Your task to perform on an android device: Clear all items from cart on costco. Search for apple airpods on costco, select the first entry, add it to the cart, then select checkout. Image 0: 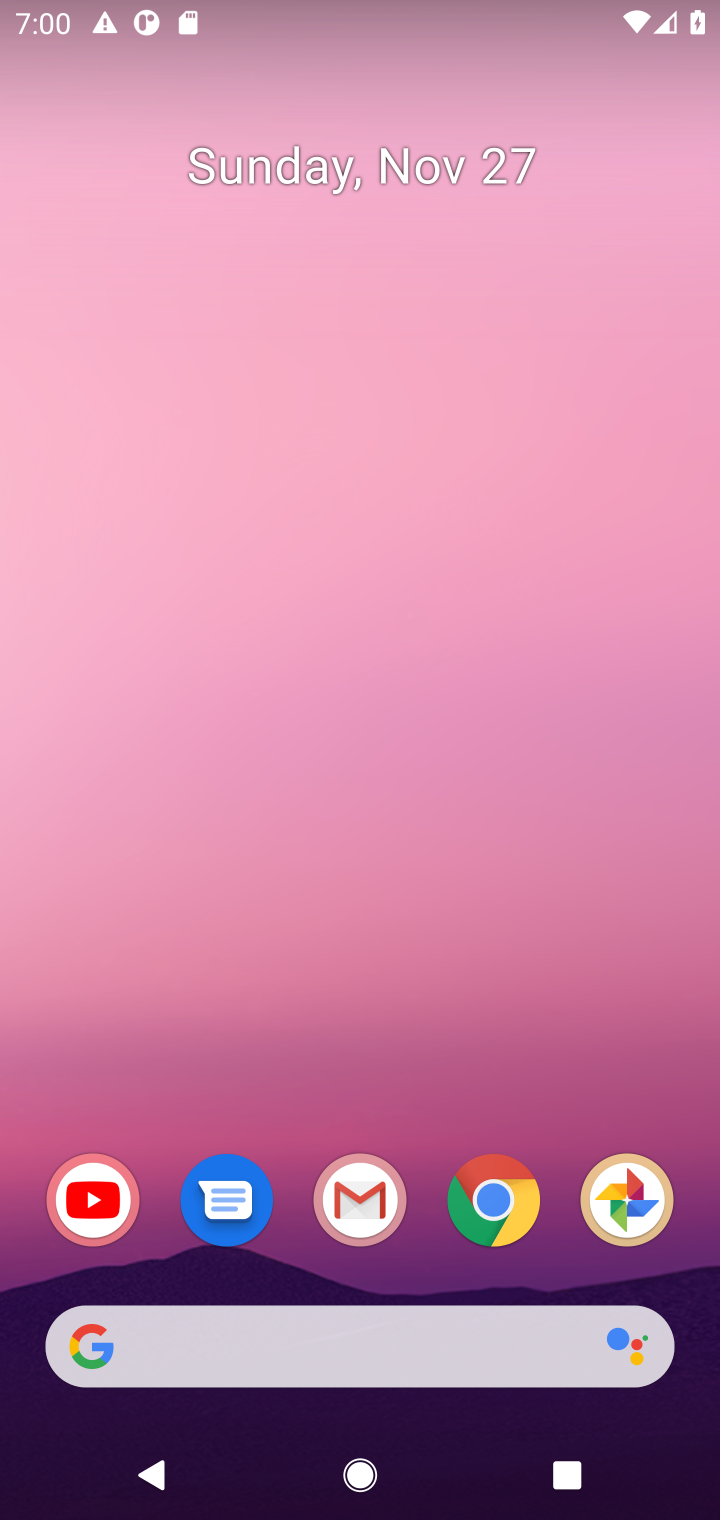
Step 0: click (516, 1213)
Your task to perform on an android device: Clear all items from cart on costco. Search for apple airpods on costco, select the first entry, add it to the cart, then select checkout. Image 1: 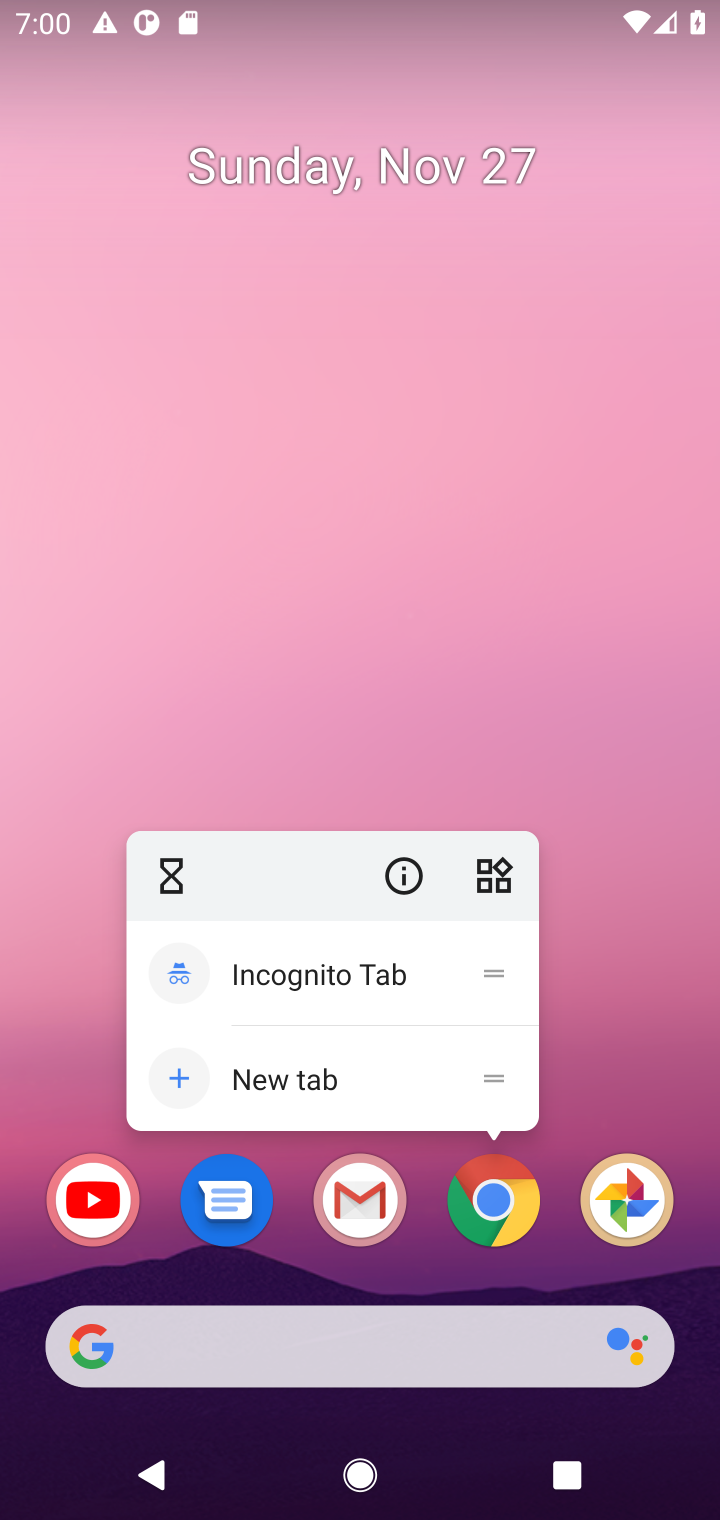
Step 1: click (495, 1213)
Your task to perform on an android device: Clear all items from cart on costco. Search for apple airpods on costco, select the first entry, add it to the cart, then select checkout. Image 2: 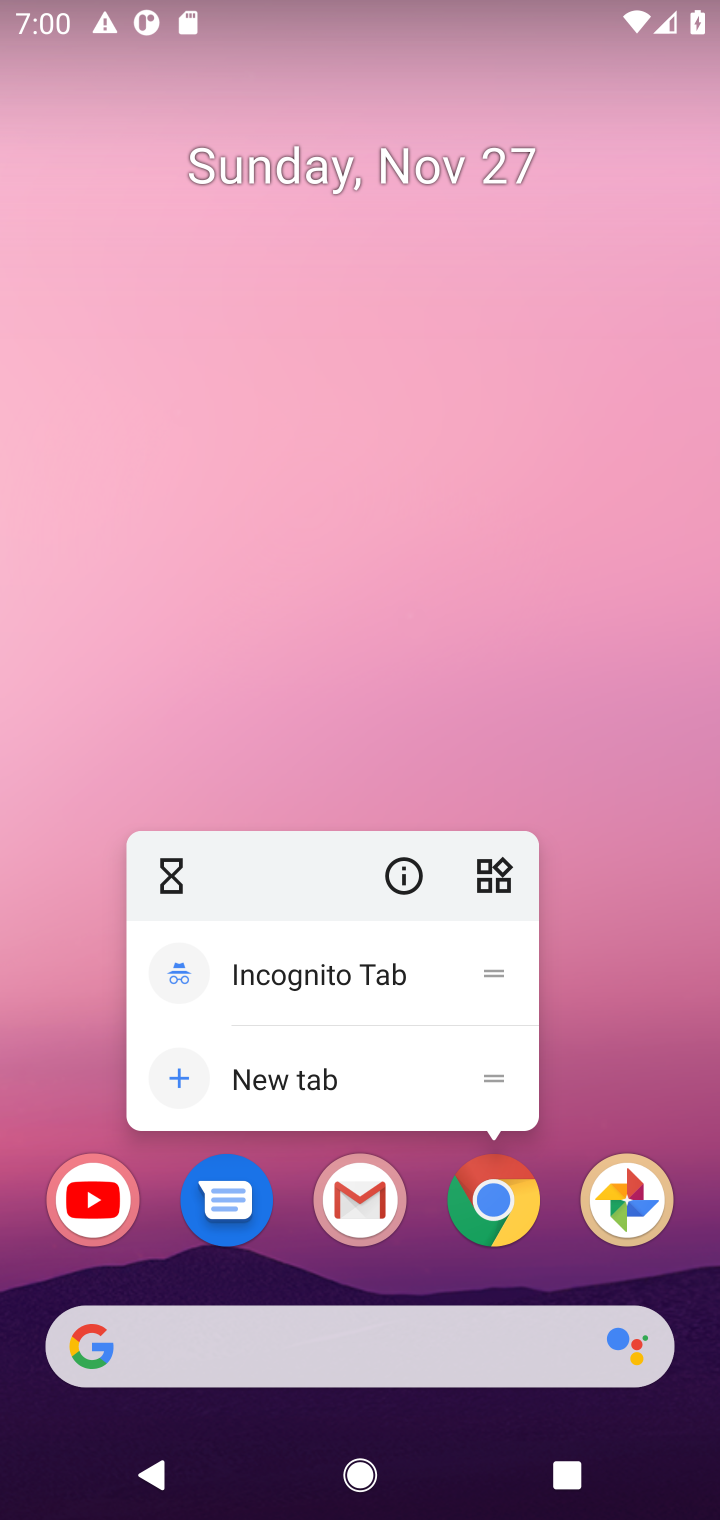
Step 2: click (485, 1216)
Your task to perform on an android device: Clear all items from cart on costco. Search for apple airpods on costco, select the first entry, add it to the cart, then select checkout. Image 3: 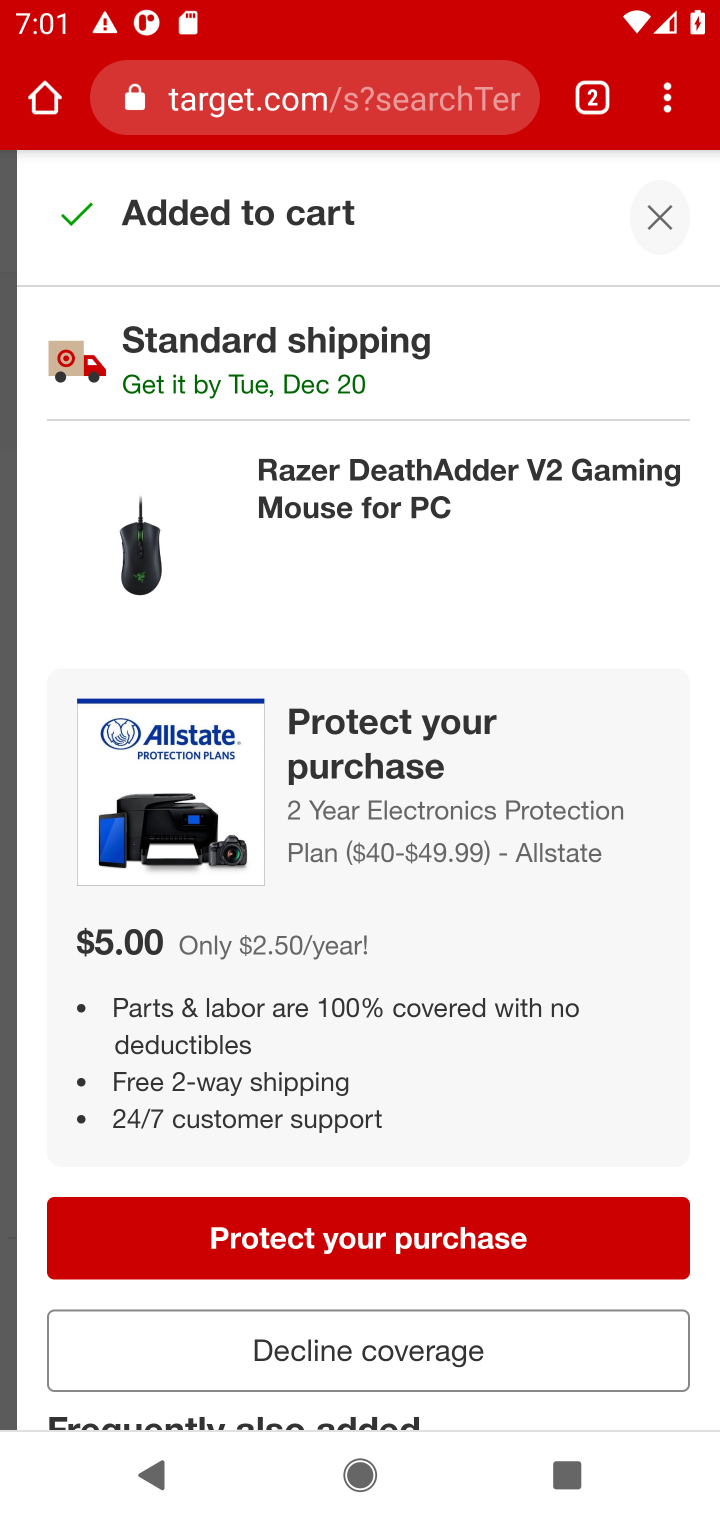
Step 3: click (324, 116)
Your task to perform on an android device: Clear all items from cart on costco. Search for apple airpods on costco, select the first entry, add it to the cart, then select checkout. Image 4: 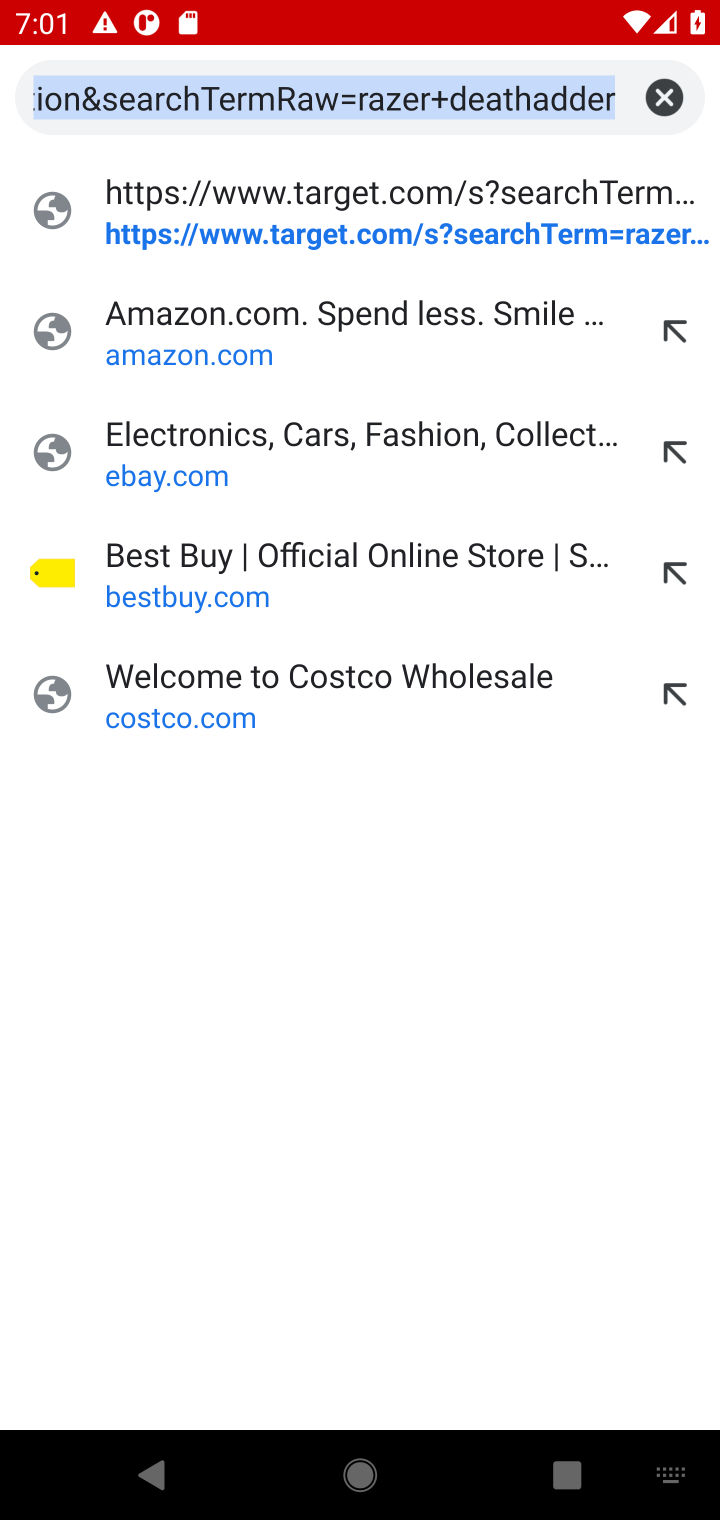
Step 4: click (139, 703)
Your task to perform on an android device: Clear all items from cart on costco. Search for apple airpods on costco, select the first entry, add it to the cart, then select checkout. Image 5: 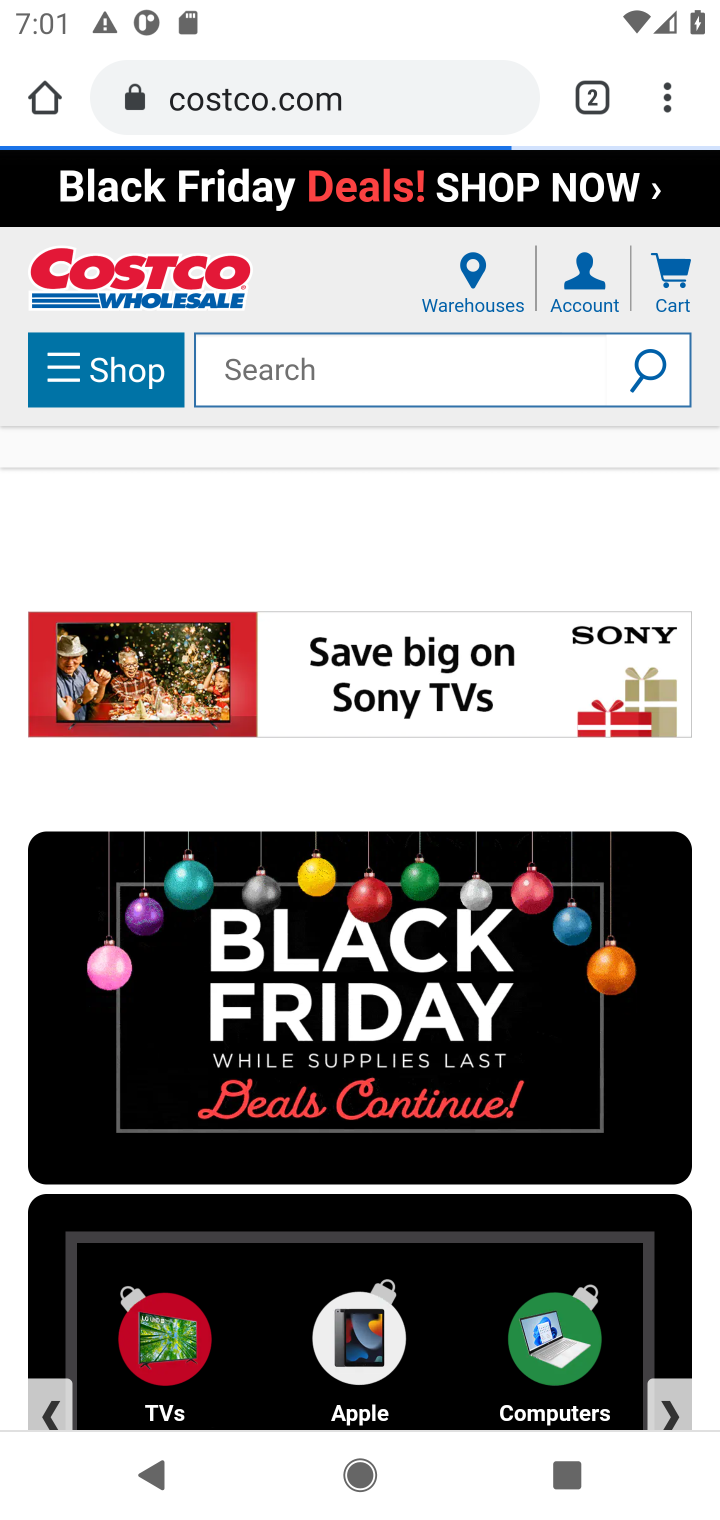
Step 5: click (659, 284)
Your task to perform on an android device: Clear all items from cart on costco. Search for apple airpods on costco, select the first entry, add it to the cart, then select checkout. Image 6: 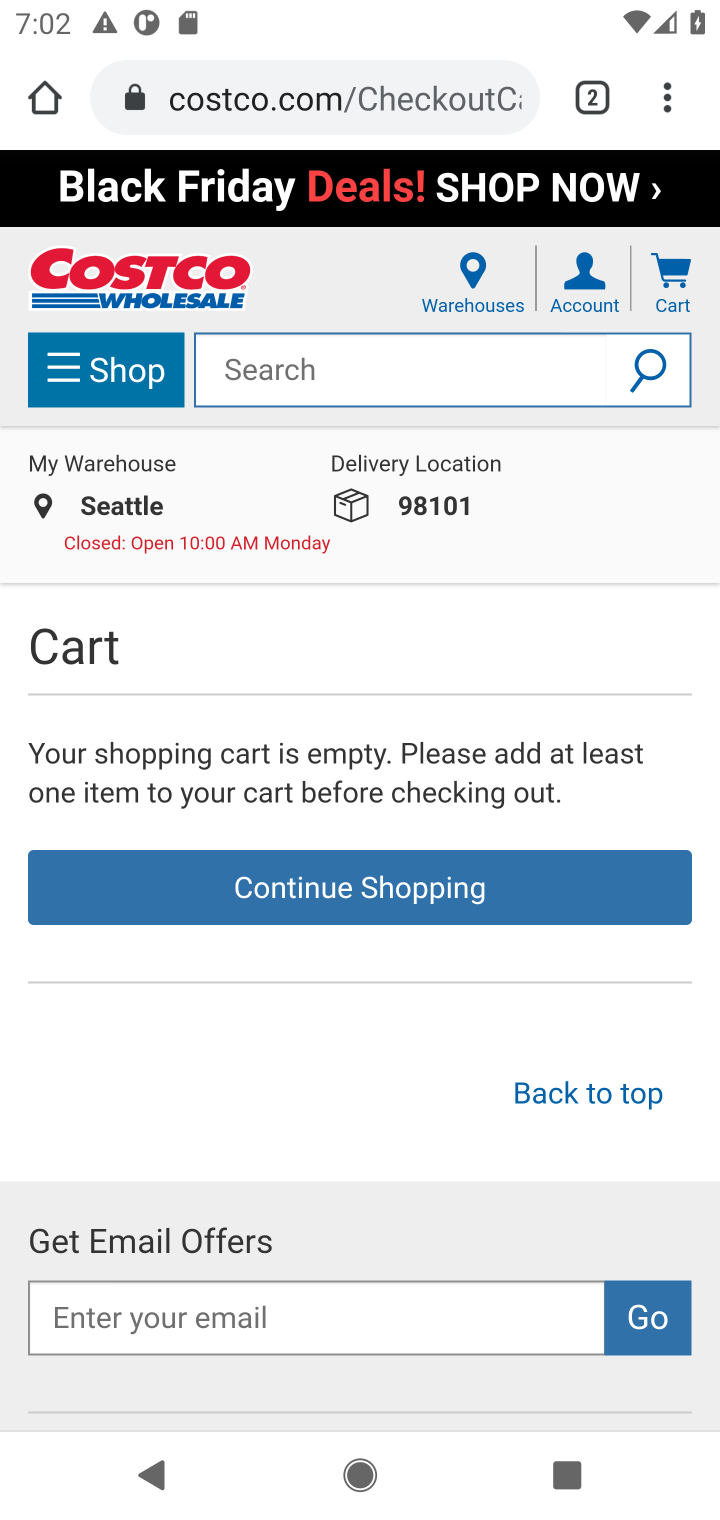
Step 6: click (265, 362)
Your task to perform on an android device: Clear all items from cart on costco. Search for apple airpods on costco, select the first entry, add it to the cart, then select checkout. Image 7: 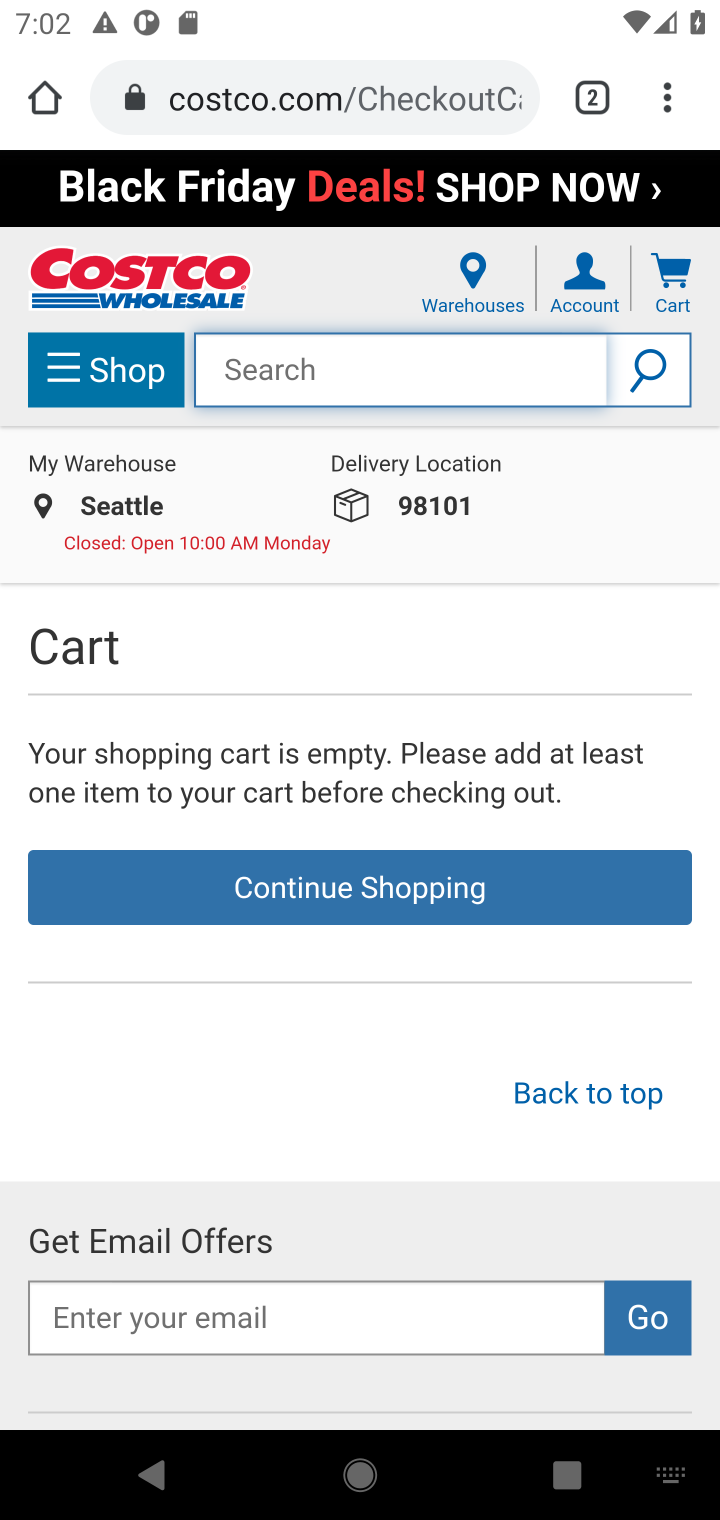
Step 7: type "apple airpods "
Your task to perform on an android device: Clear all items from cart on costco. Search for apple airpods on costco, select the first entry, add it to the cart, then select checkout. Image 8: 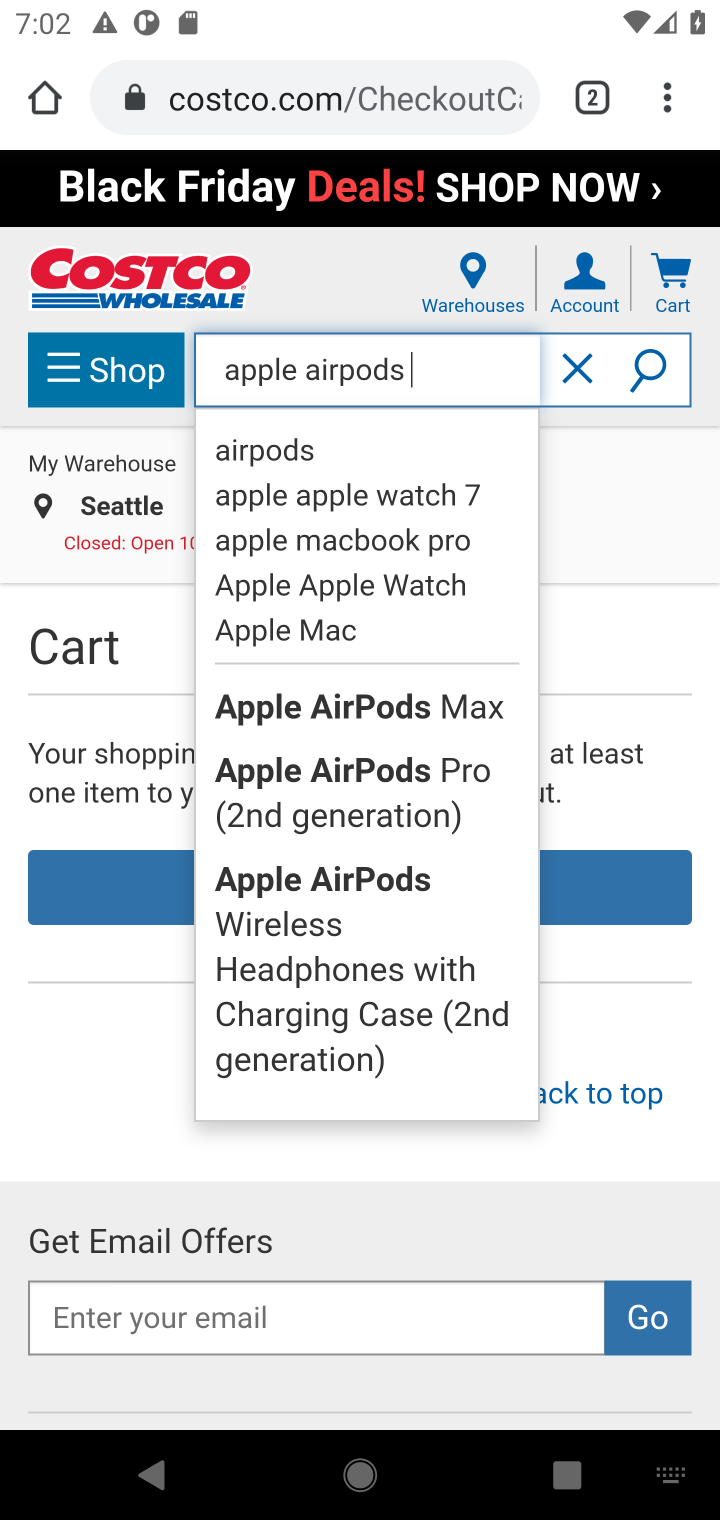
Step 8: click (641, 364)
Your task to perform on an android device: Clear all items from cart on costco. Search for apple airpods on costco, select the first entry, add it to the cart, then select checkout. Image 9: 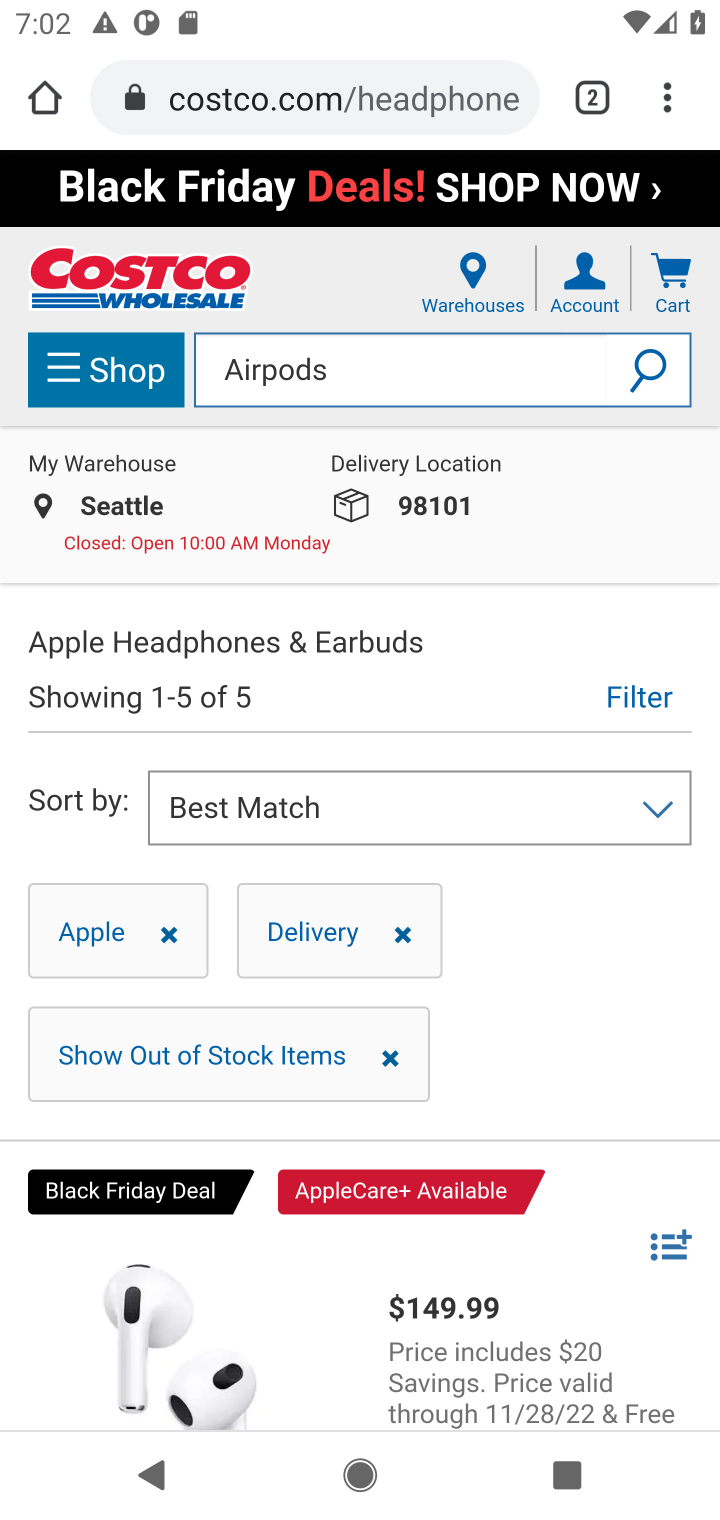
Step 9: drag from (471, 1066) to (519, 666)
Your task to perform on an android device: Clear all items from cart on costco. Search for apple airpods on costco, select the first entry, add it to the cart, then select checkout. Image 10: 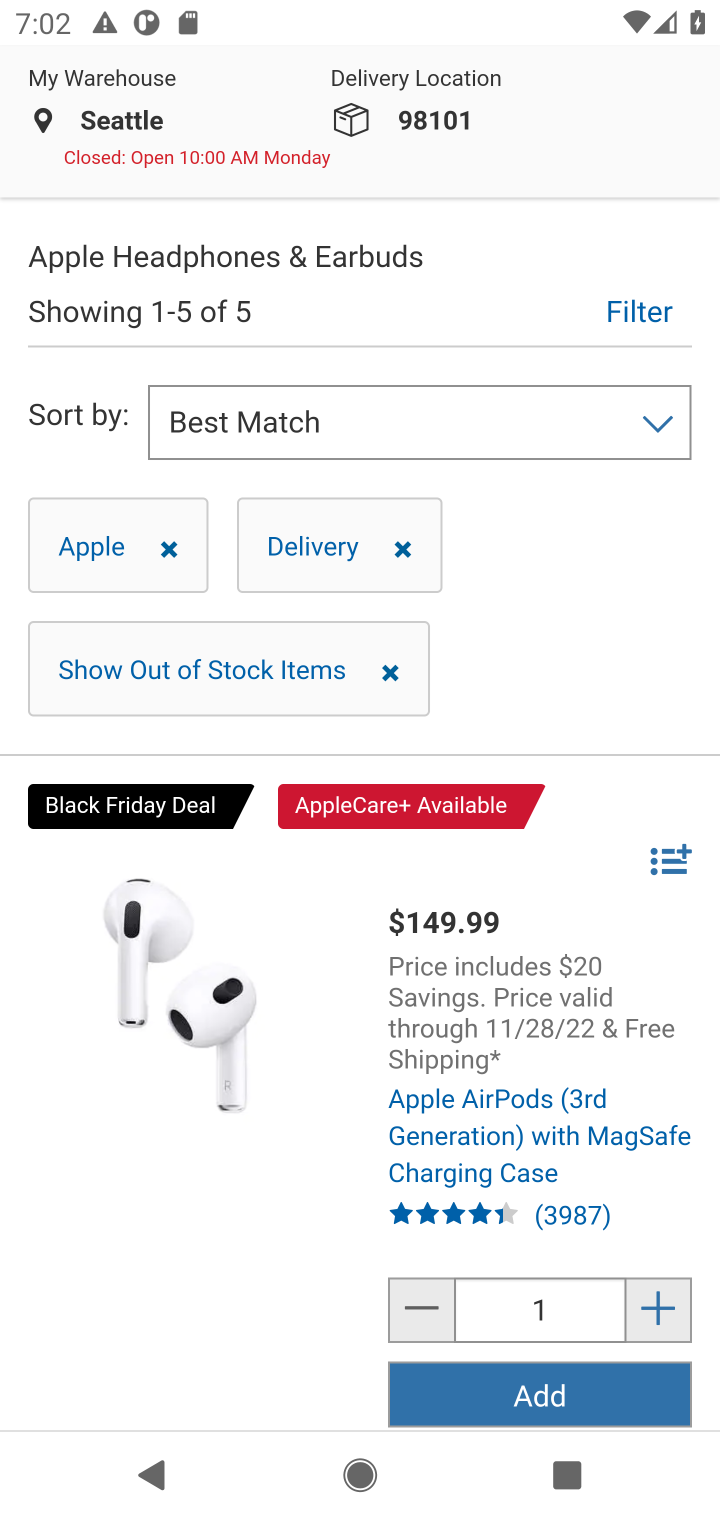
Step 10: click (512, 1391)
Your task to perform on an android device: Clear all items from cart on costco. Search for apple airpods on costco, select the first entry, add it to the cart, then select checkout. Image 11: 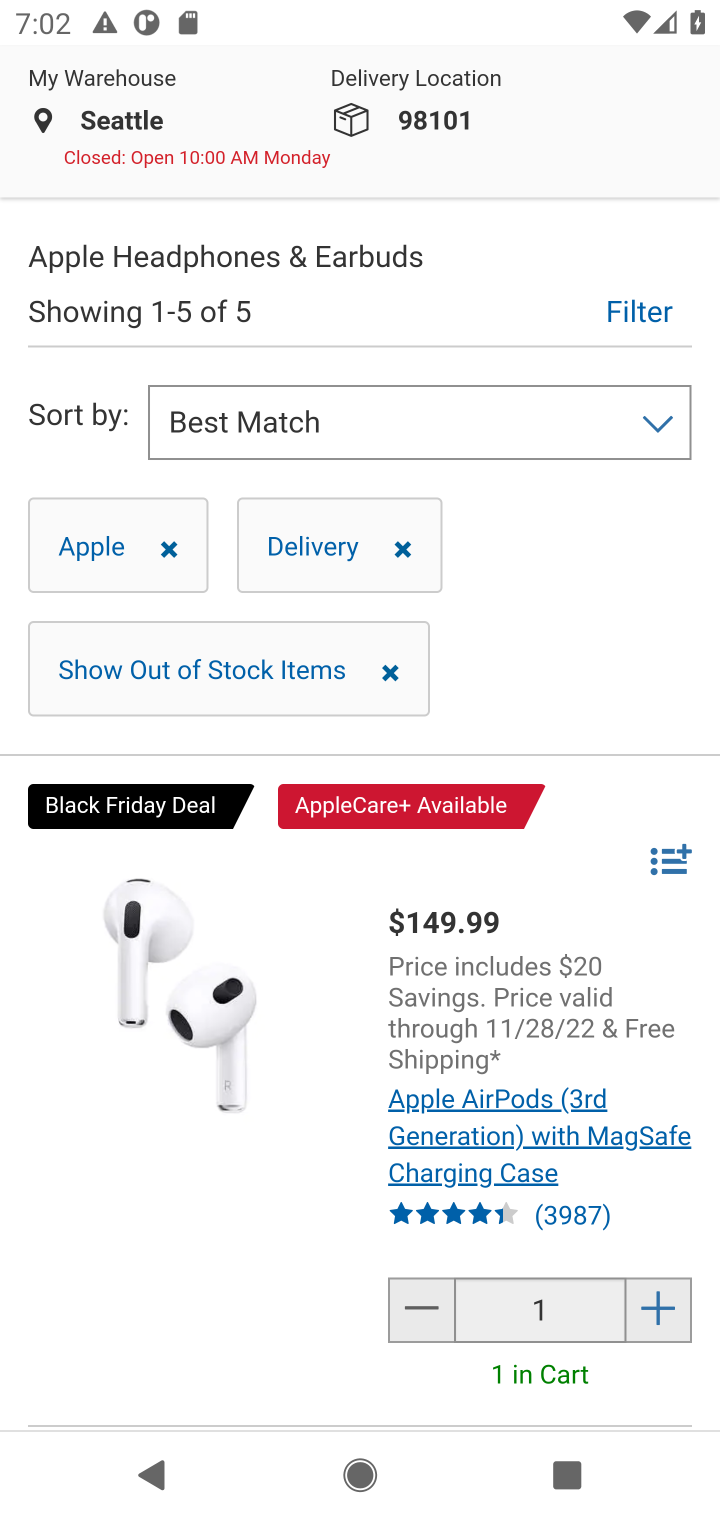
Step 11: click (529, 1380)
Your task to perform on an android device: Clear all items from cart on costco. Search for apple airpods on costco, select the first entry, add it to the cart, then select checkout. Image 12: 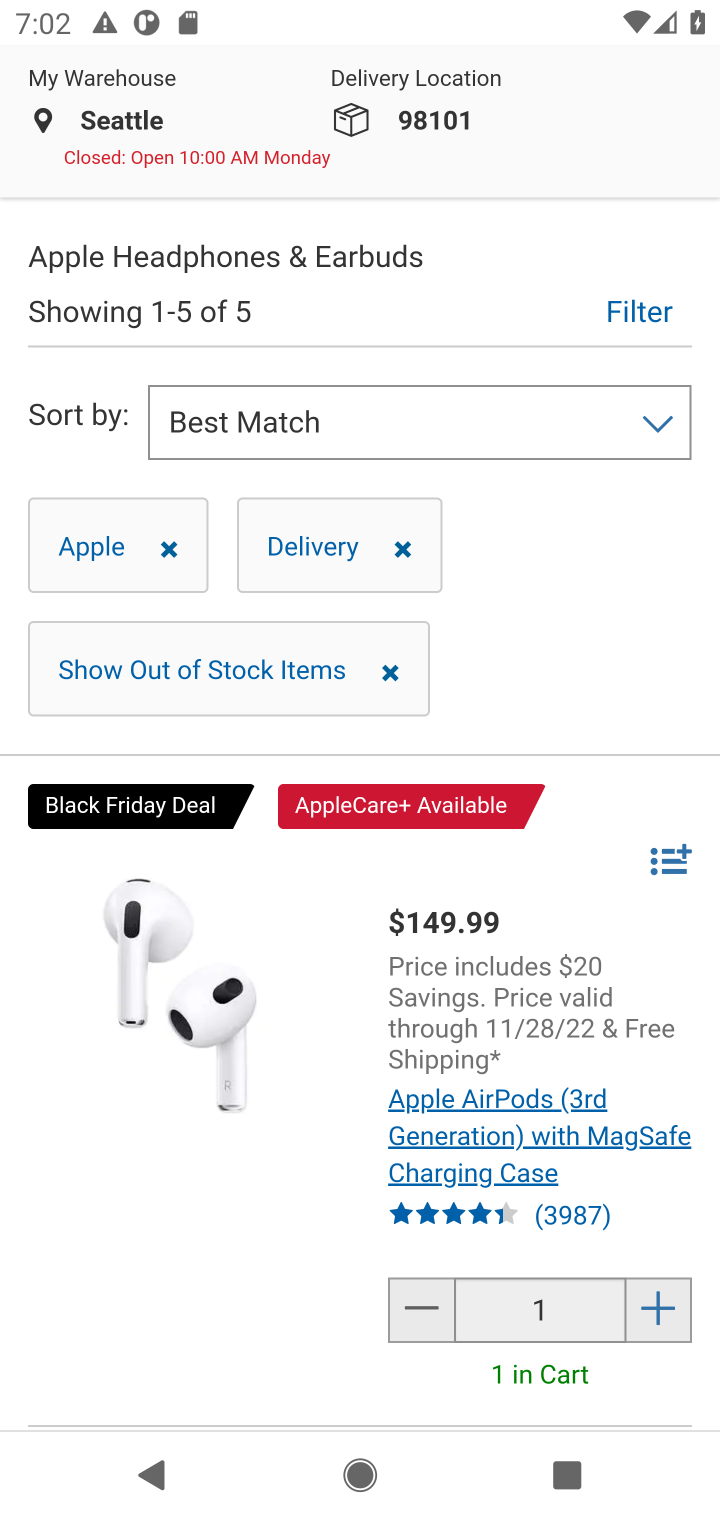
Step 12: drag from (486, 560) to (419, 1044)
Your task to perform on an android device: Clear all items from cart on costco. Search for apple airpods on costco, select the first entry, add it to the cart, then select checkout. Image 13: 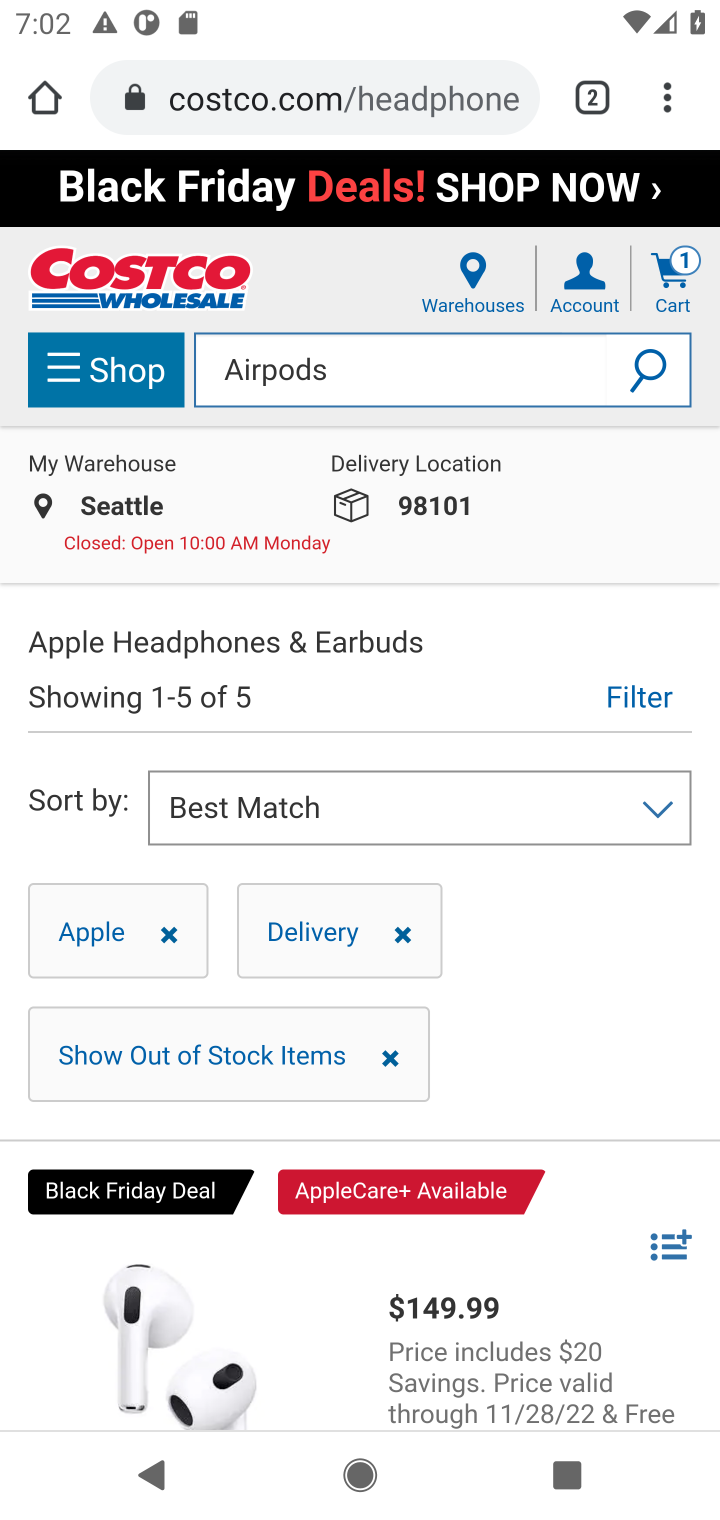
Step 13: click (673, 290)
Your task to perform on an android device: Clear all items from cart on costco. Search for apple airpods on costco, select the first entry, add it to the cart, then select checkout. Image 14: 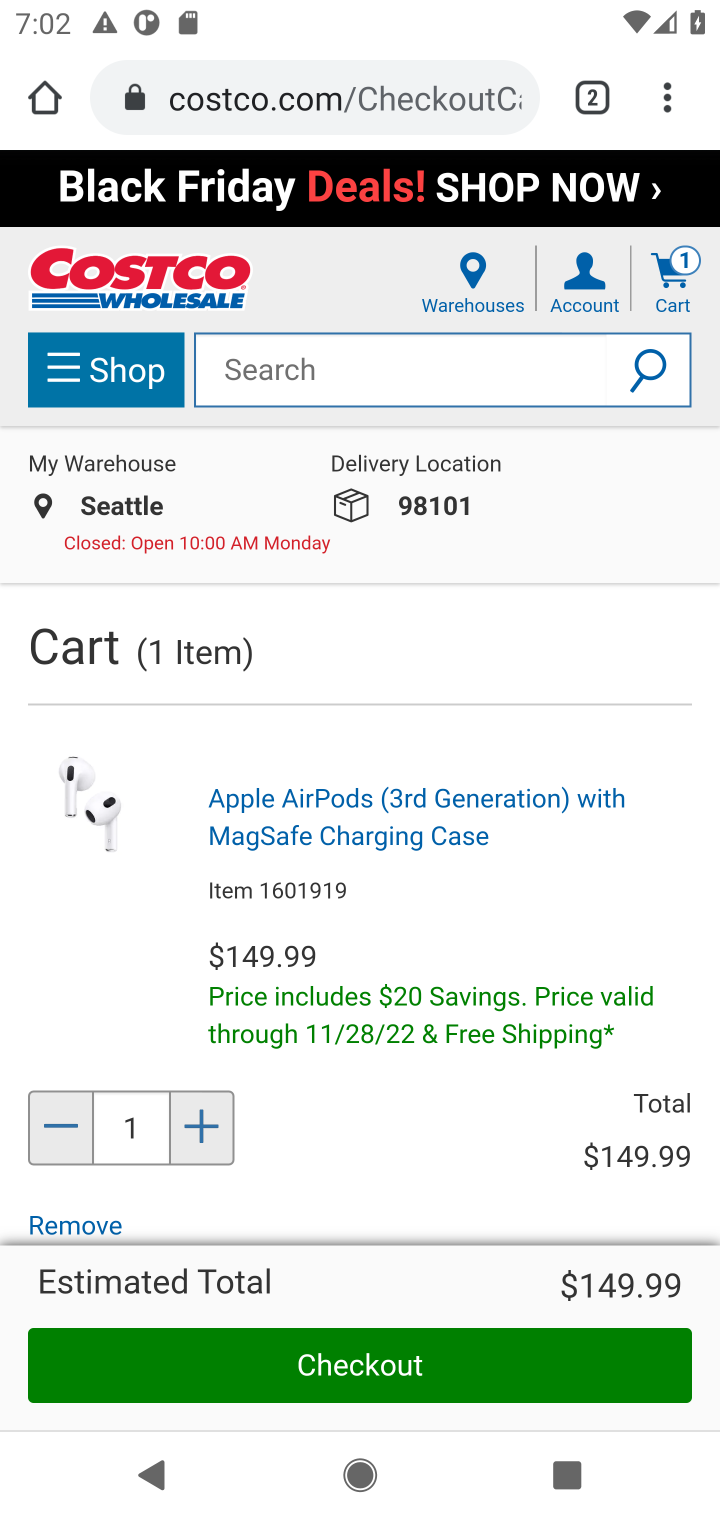
Step 14: click (333, 1364)
Your task to perform on an android device: Clear all items from cart on costco. Search for apple airpods on costco, select the first entry, add it to the cart, then select checkout. Image 15: 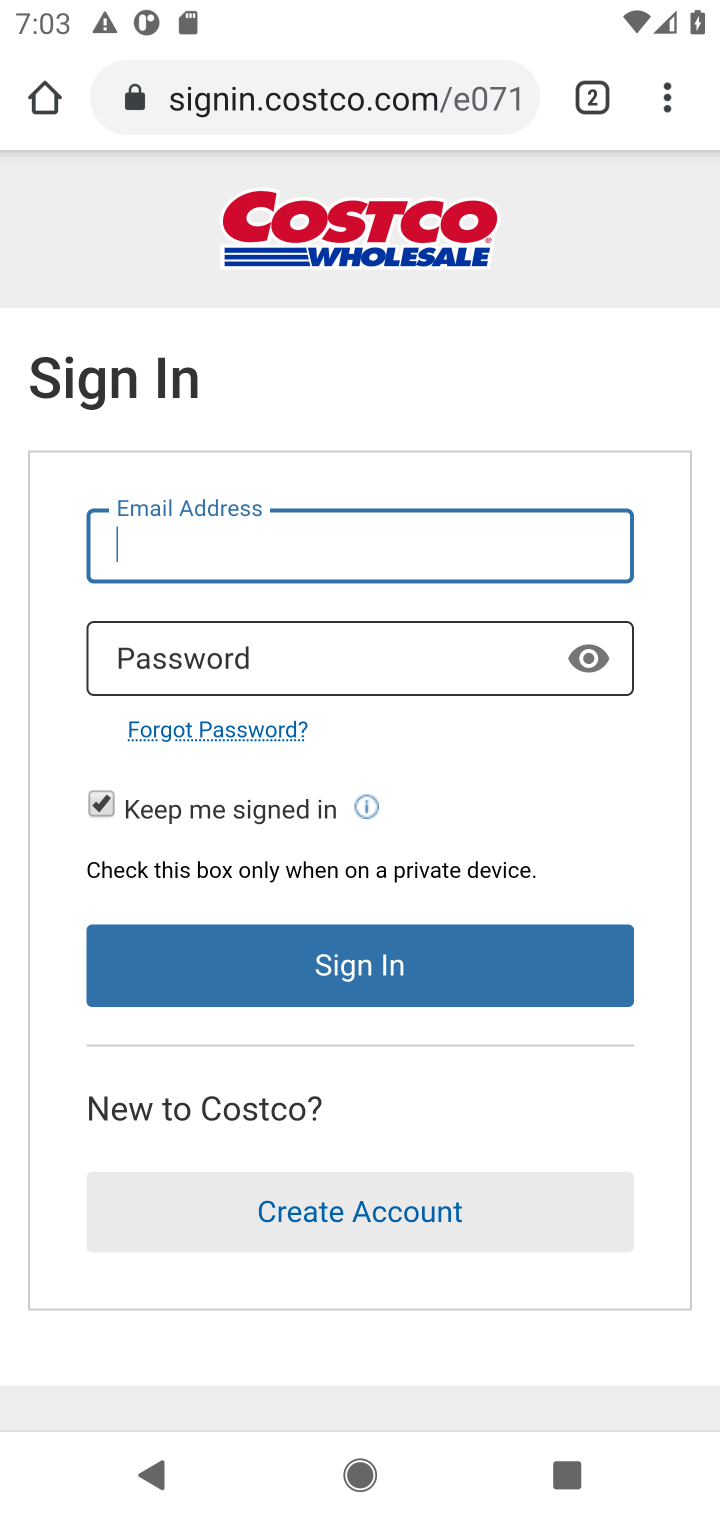
Step 15: task complete